Your task to perform on an android device: Go to calendar. Show me events next week Image 0: 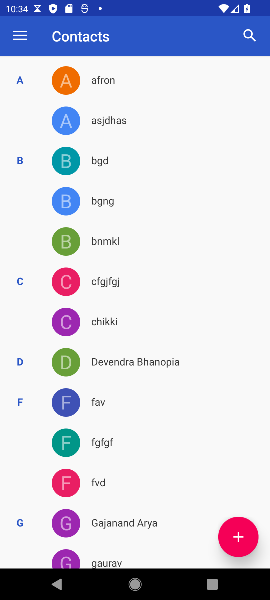
Step 0: press home button
Your task to perform on an android device: Go to calendar. Show me events next week Image 1: 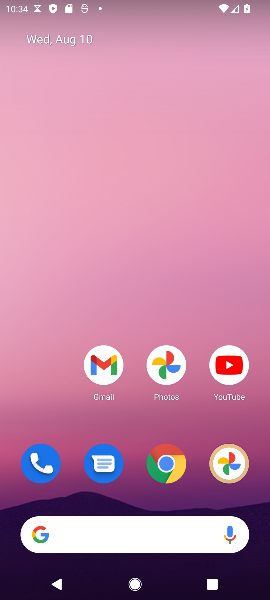
Step 1: drag from (18, 570) to (101, 66)
Your task to perform on an android device: Go to calendar. Show me events next week Image 2: 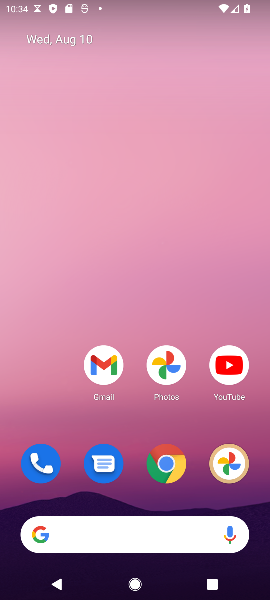
Step 2: drag from (28, 579) to (118, 204)
Your task to perform on an android device: Go to calendar. Show me events next week Image 3: 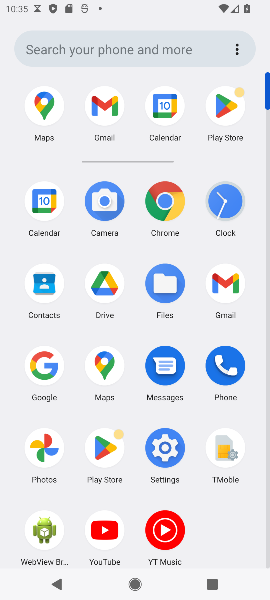
Step 3: click (175, 111)
Your task to perform on an android device: Go to calendar. Show me events next week Image 4: 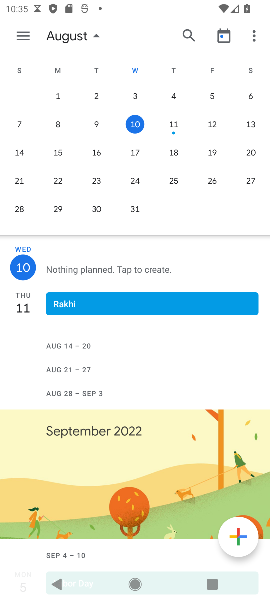
Step 4: task complete